Your task to perform on an android device: turn on data saver in the chrome app Image 0: 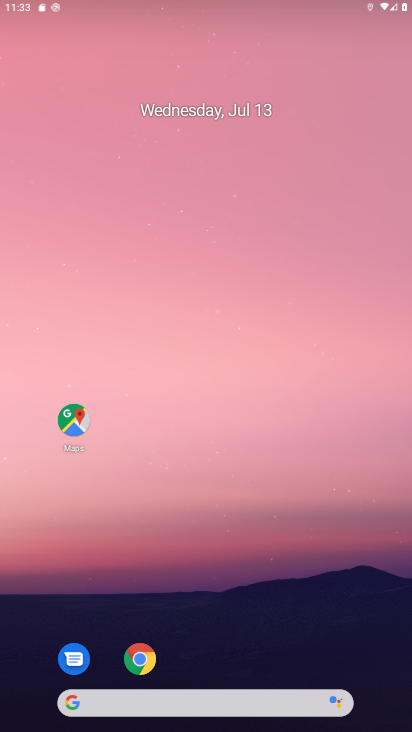
Step 0: press home button
Your task to perform on an android device: turn on data saver in the chrome app Image 1: 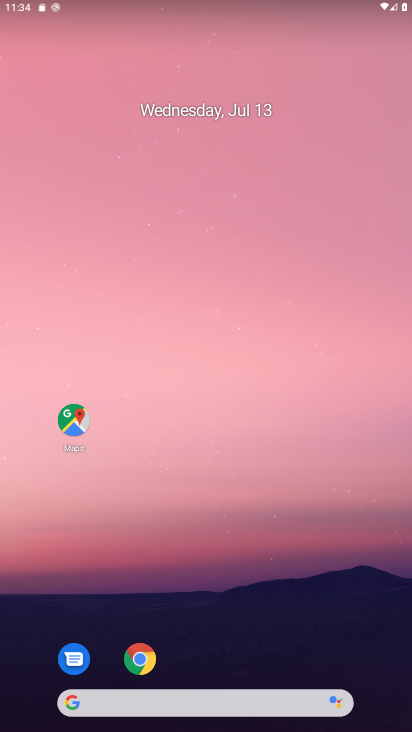
Step 1: click (135, 664)
Your task to perform on an android device: turn on data saver in the chrome app Image 2: 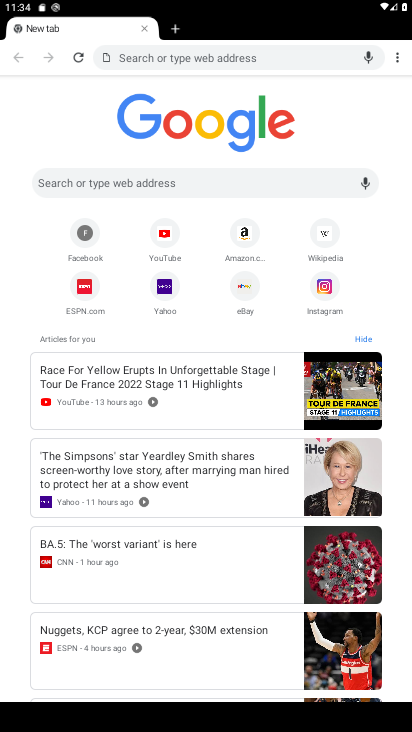
Step 2: click (391, 53)
Your task to perform on an android device: turn on data saver in the chrome app Image 3: 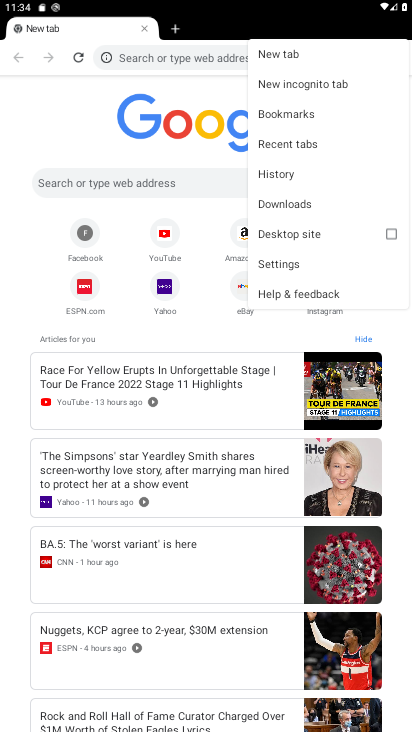
Step 3: click (300, 257)
Your task to perform on an android device: turn on data saver in the chrome app Image 4: 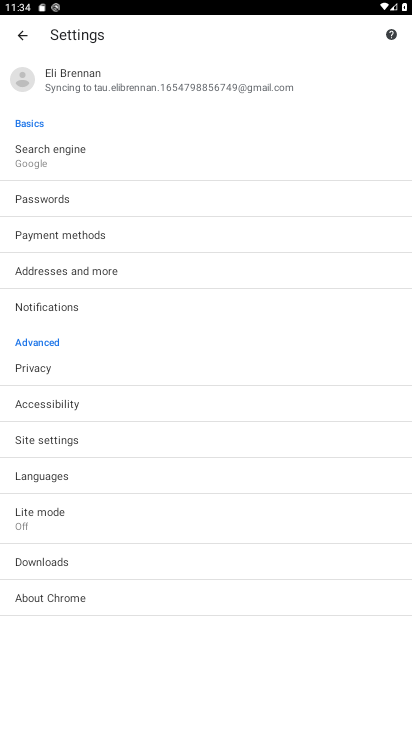
Step 4: click (61, 518)
Your task to perform on an android device: turn on data saver in the chrome app Image 5: 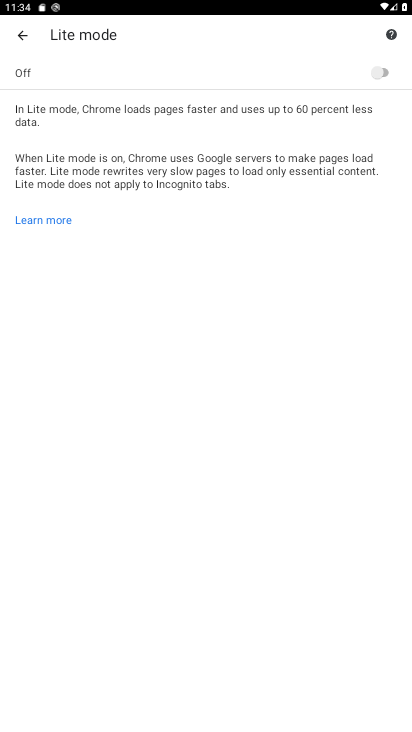
Step 5: click (374, 72)
Your task to perform on an android device: turn on data saver in the chrome app Image 6: 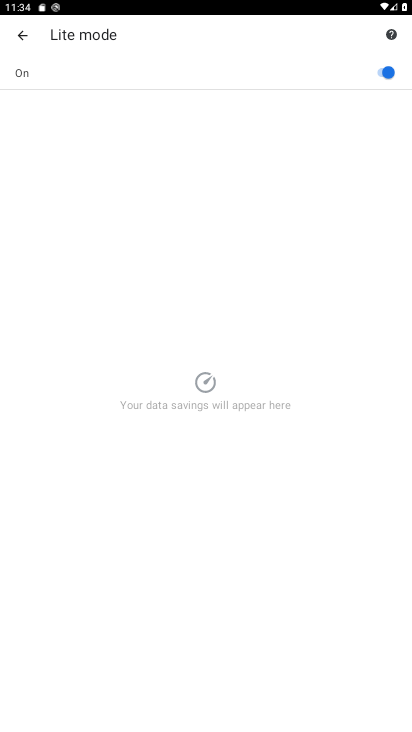
Step 6: task complete